Your task to perform on an android device: set an alarm Image 0: 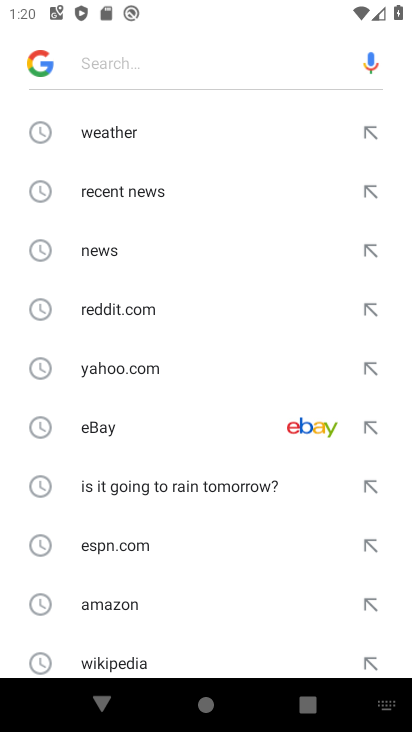
Step 0: press home button
Your task to perform on an android device: set an alarm Image 1: 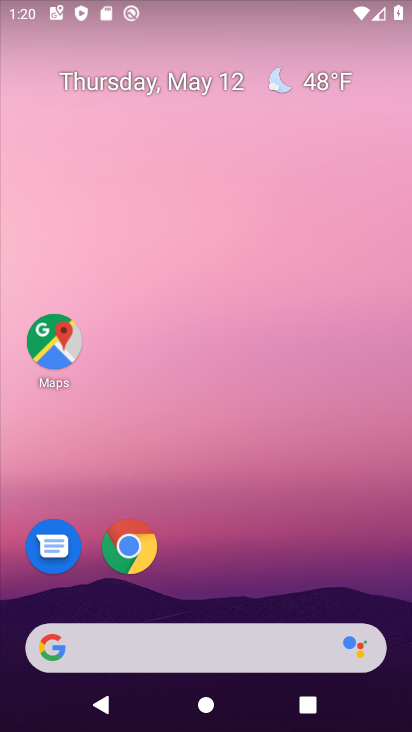
Step 1: drag from (230, 651) to (385, 136)
Your task to perform on an android device: set an alarm Image 2: 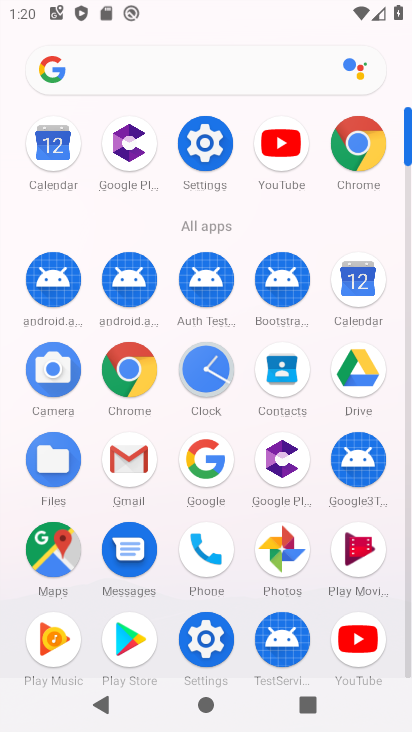
Step 2: click (207, 377)
Your task to perform on an android device: set an alarm Image 3: 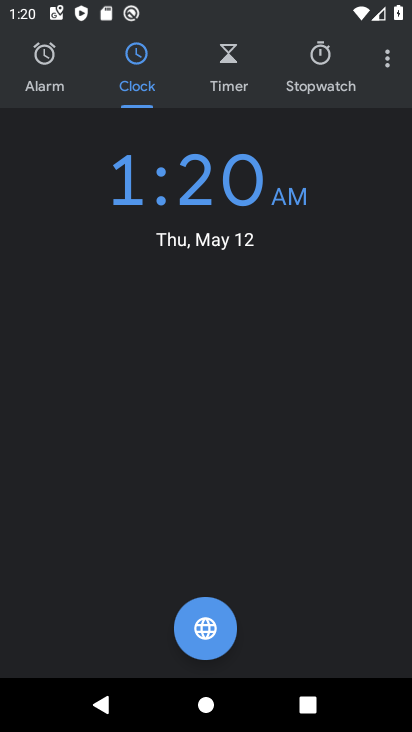
Step 3: click (56, 84)
Your task to perform on an android device: set an alarm Image 4: 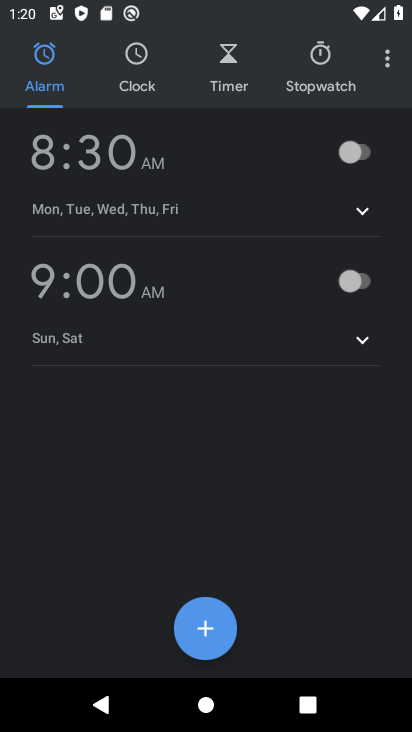
Step 4: click (73, 159)
Your task to perform on an android device: set an alarm Image 5: 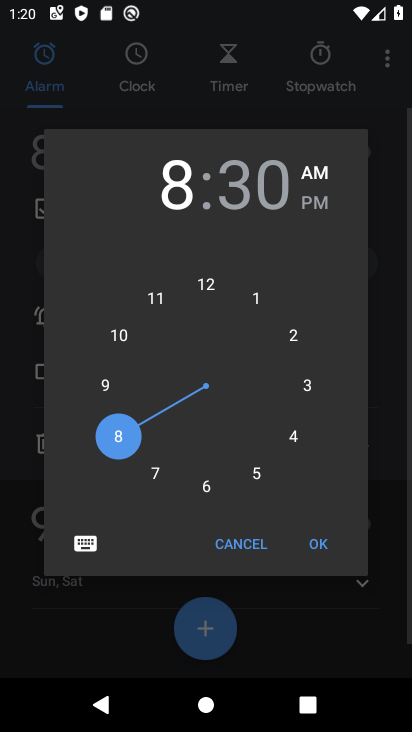
Step 5: click (311, 555)
Your task to perform on an android device: set an alarm Image 6: 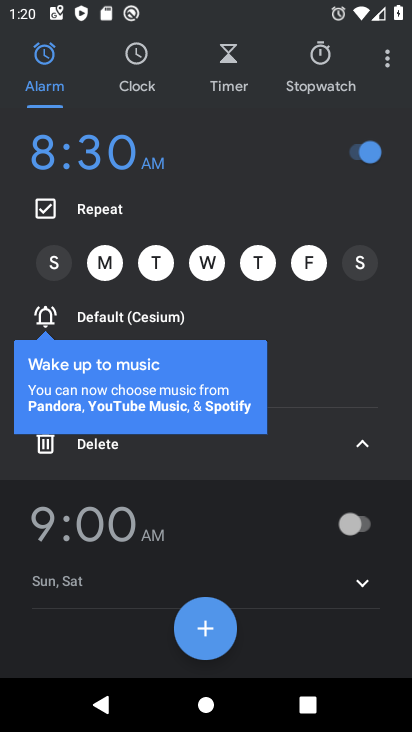
Step 6: task complete